Your task to perform on an android device: Go to network settings Image 0: 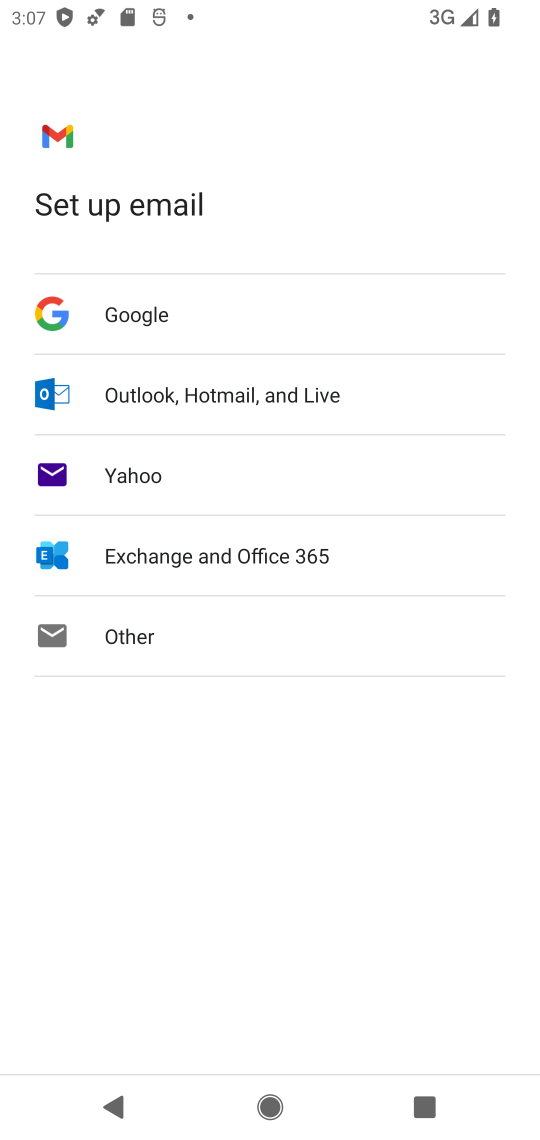
Step 0: press home button
Your task to perform on an android device: Go to network settings Image 1: 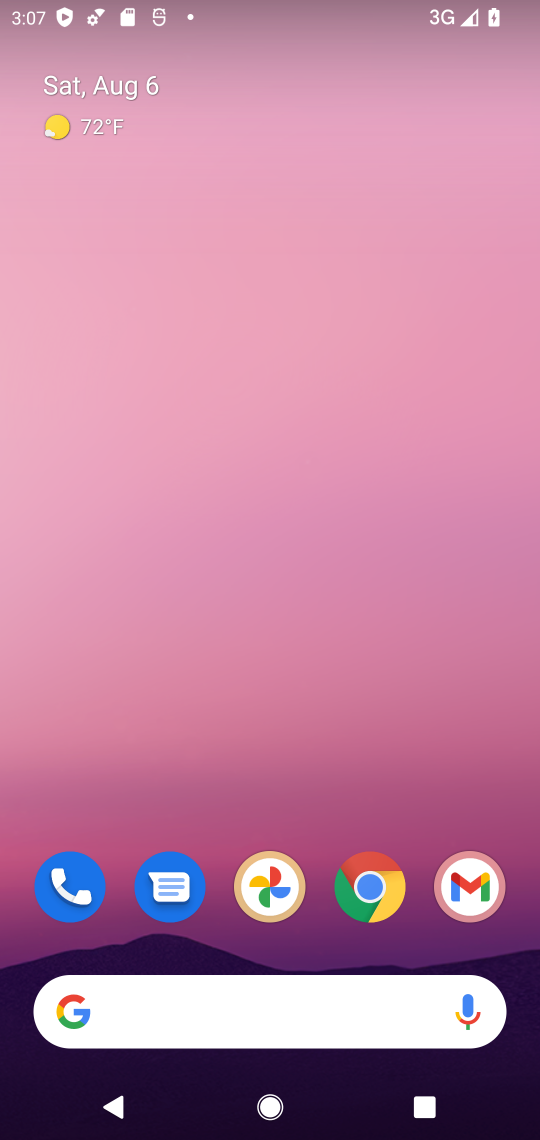
Step 1: drag from (416, 443) to (415, 128)
Your task to perform on an android device: Go to network settings Image 2: 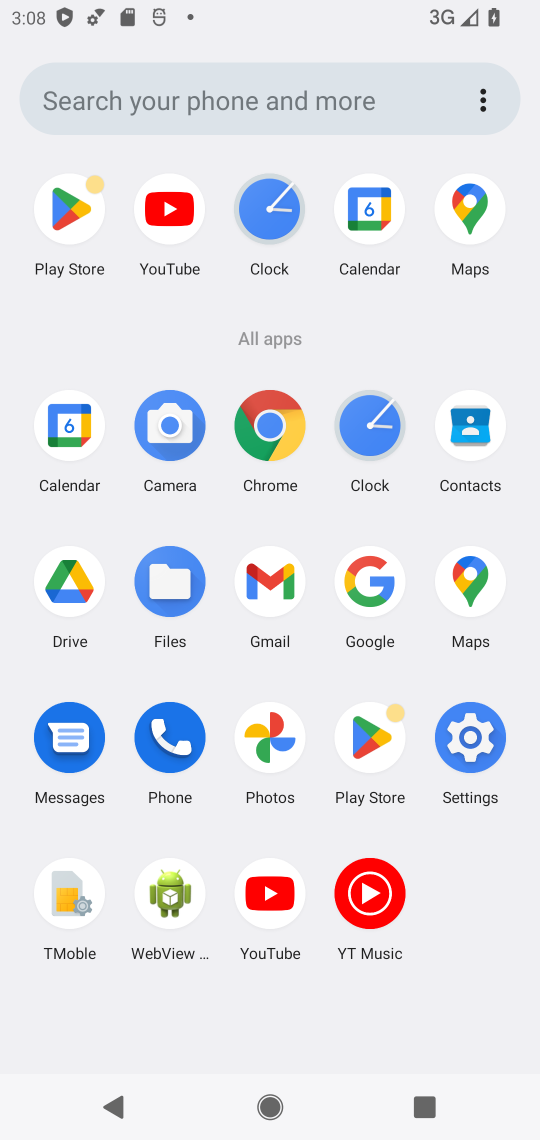
Step 2: click (465, 728)
Your task to perform on an android device: Go to network settings Image 3: 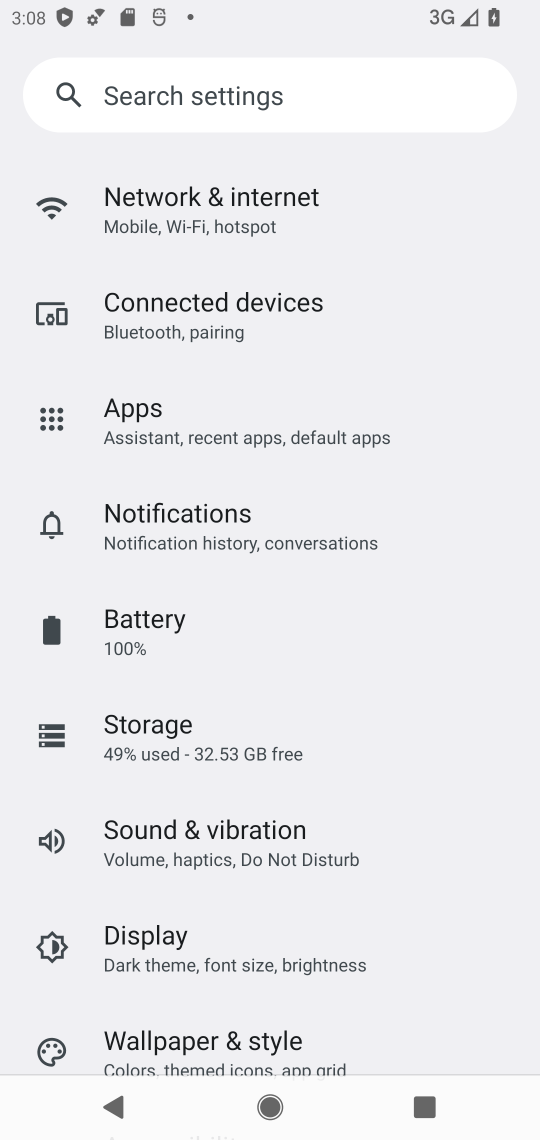
Step 3: drag from (473, 800) to (474, 717)
Your task to perform on an android device: Go to network settings Image 4: 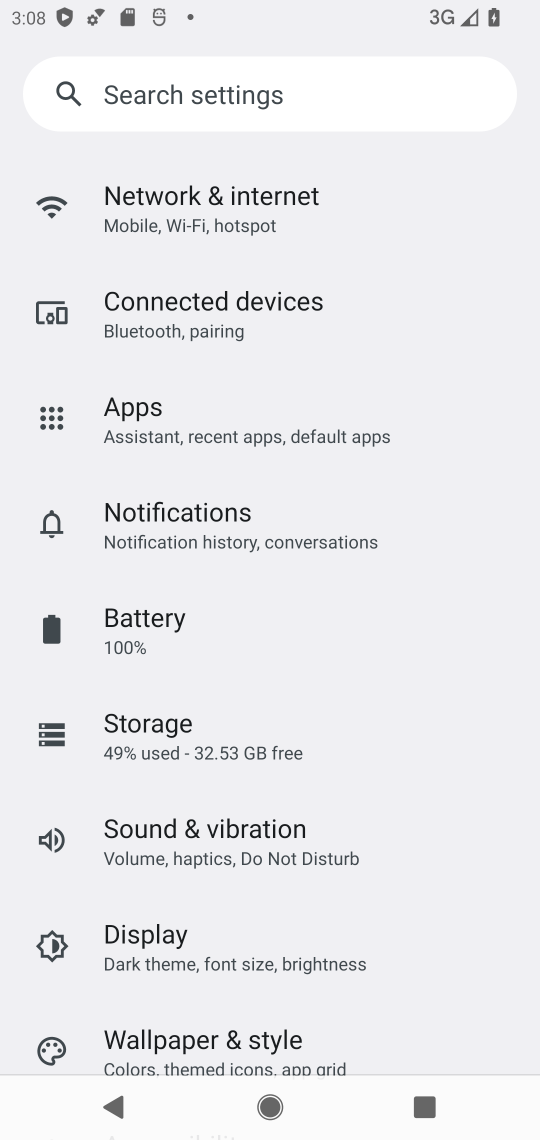
Step 4: drag from (432, 885) to (446, 557)
Your task to perform on an android device: Go to network settings Image 5: 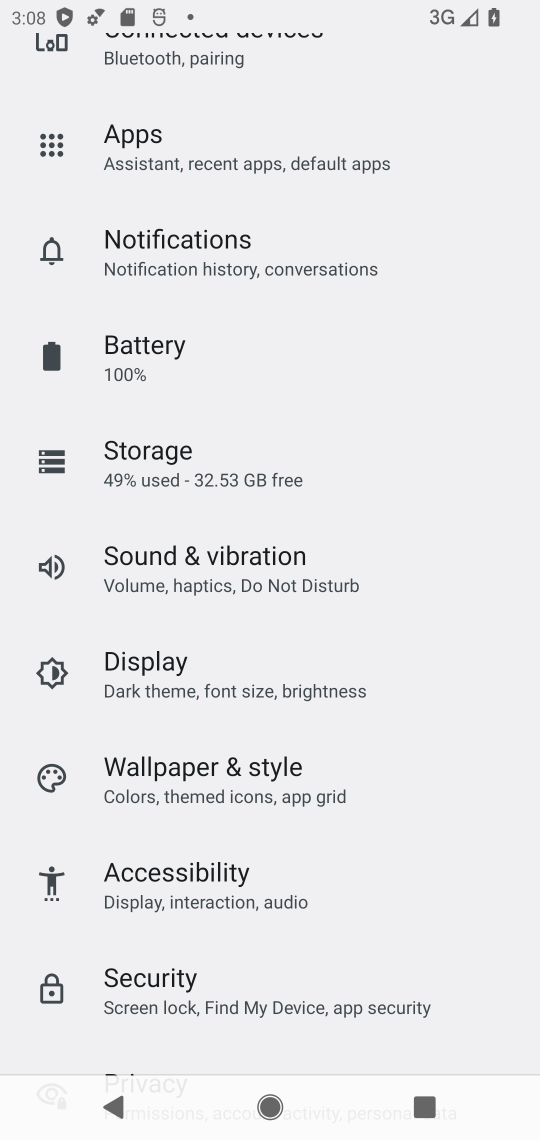
Step 5: drag from (467, 278) to (290, 43)
Your task to perform on an android device: Go to network settings Image 6: 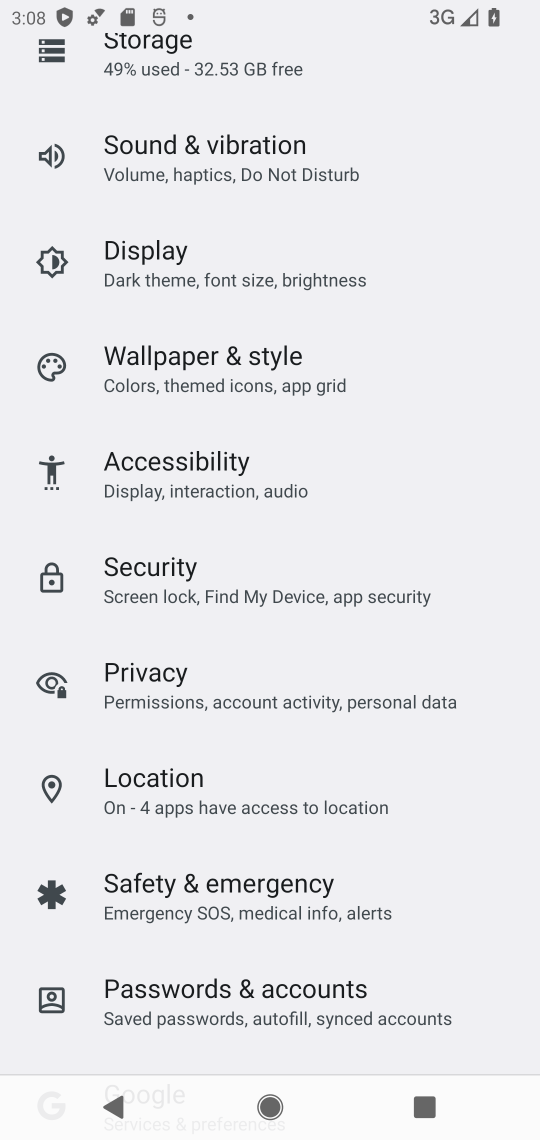
Step 6: drag from (457, 120) to (458, 549)
Your task to perform on an android device: Go to network settings Image 7: 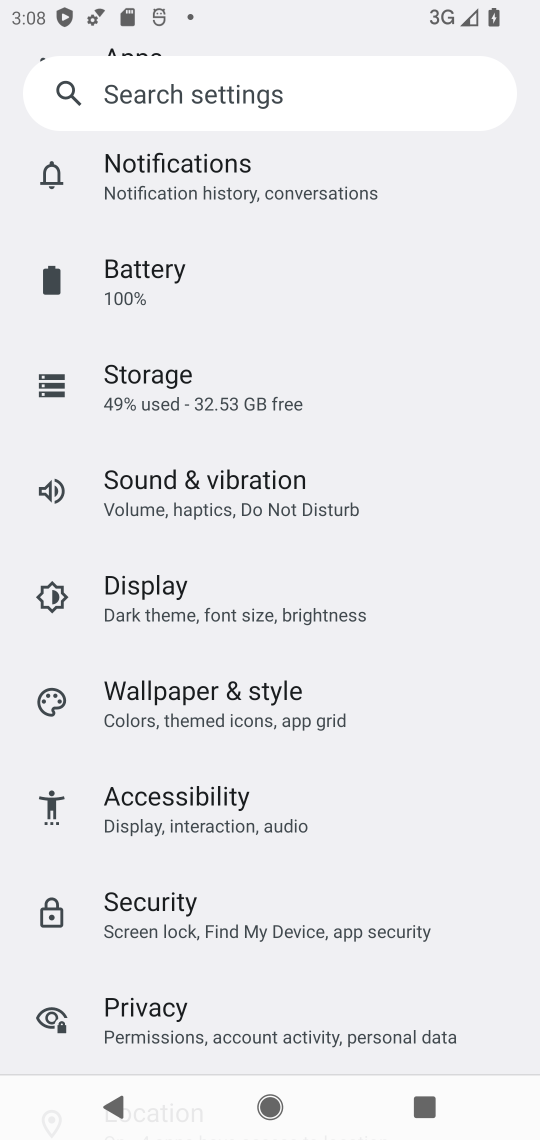
Step 7: drag from (425, 125) to (463, 606)
Your task to perform on an android device: Go to network settings Image 8: 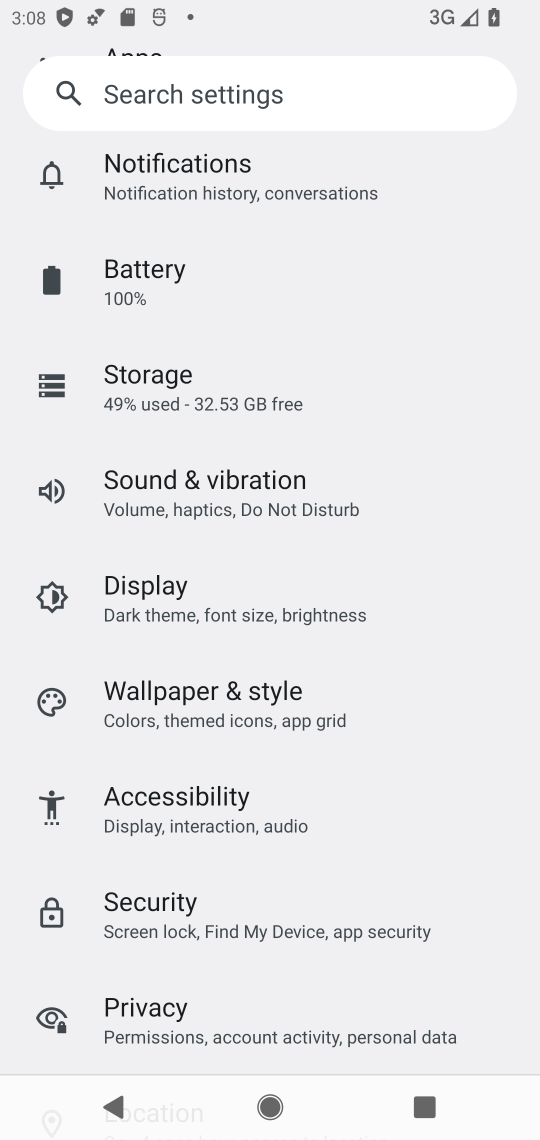
Step 8: drag from (466, 146) to (492, 609)
Your task to perform on an android device: Go to network settings Image 9: 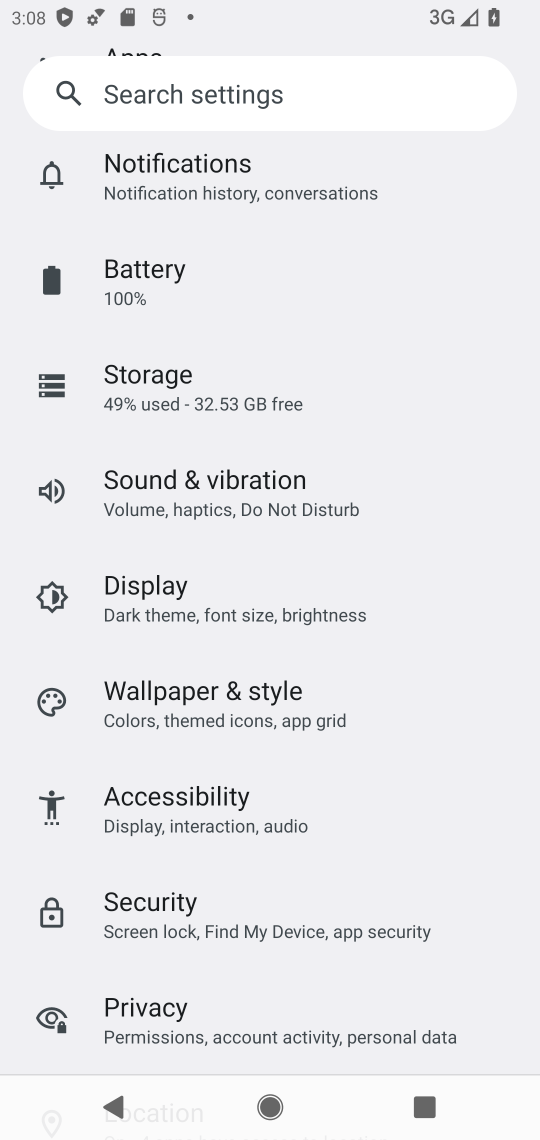
Step 9: drag from (420, 202) to (438, 676)
Your task to perform on an android device: Go to network settings Image 10: 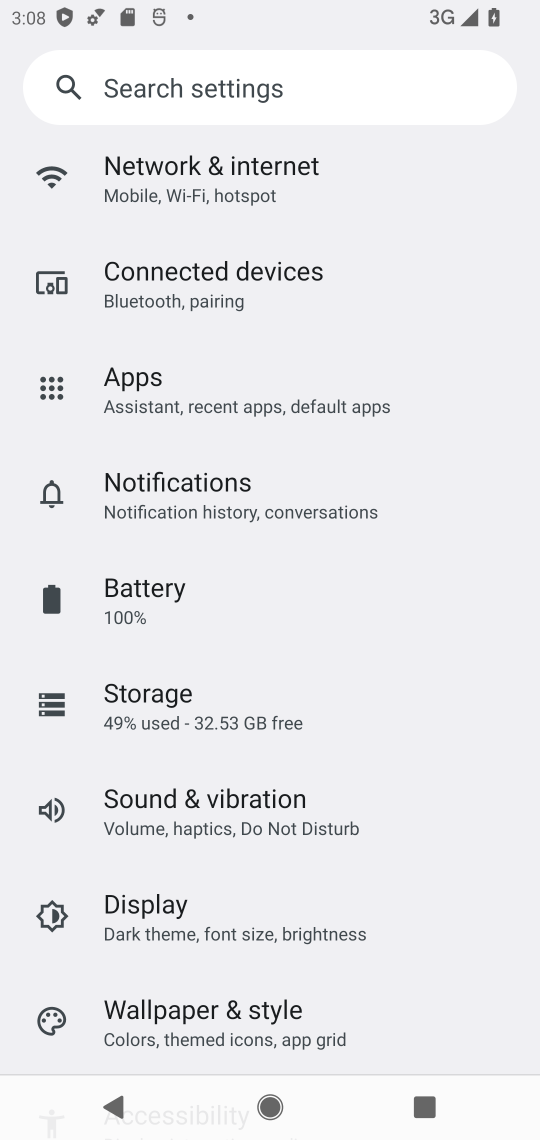
Step 10: drag from (481, 314) to (477, 697)
Your task to perform on an android device: Go to network settings Image 11: 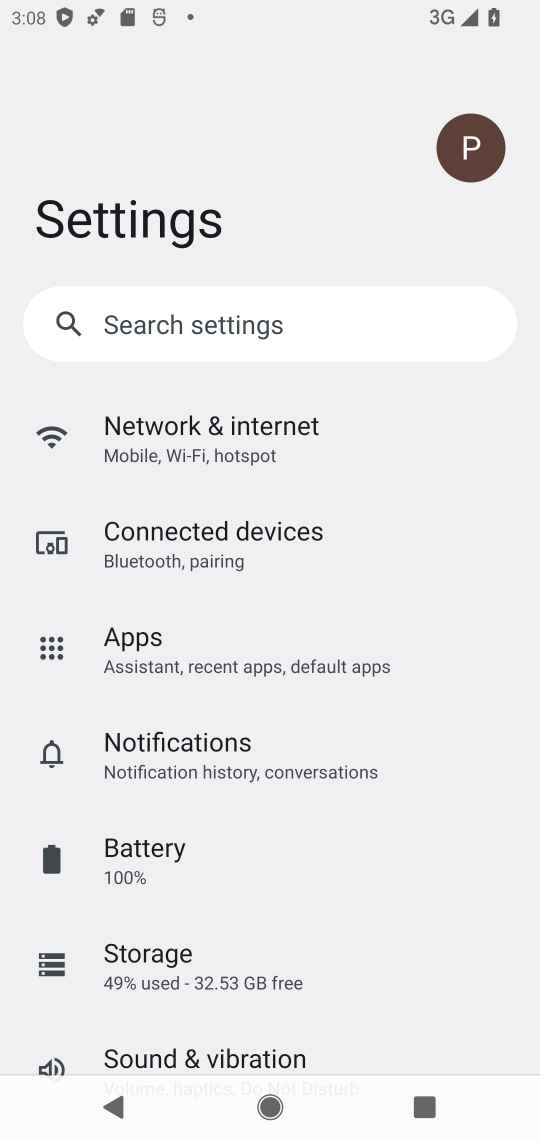
Step 11: click (290, 435)
Your task to perform on an android device: Go to network settings Image 12: 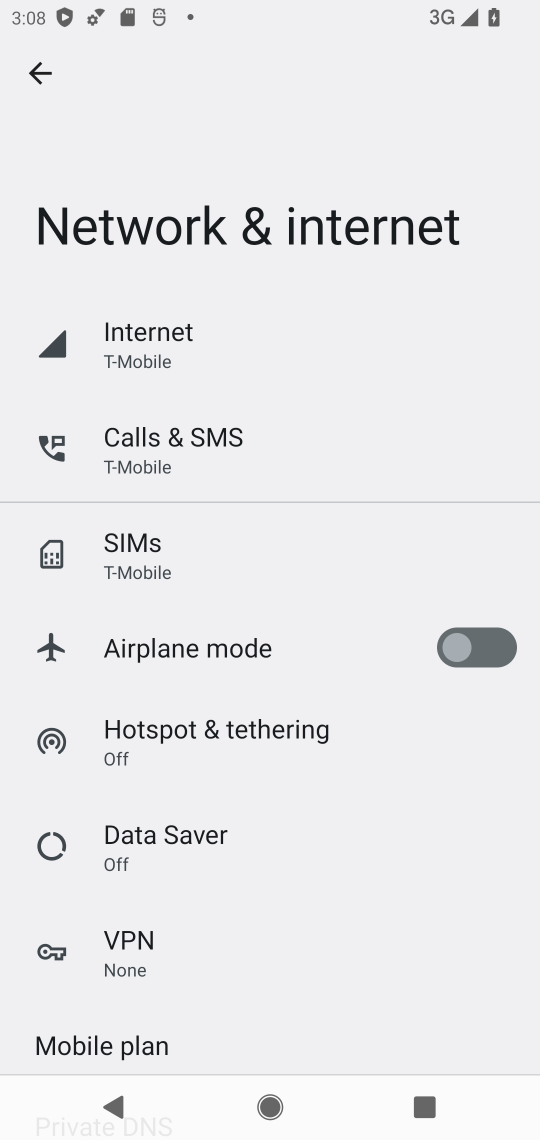
Step 12: task complete